Your task to perform on an android device: Open sound settings Image 0: 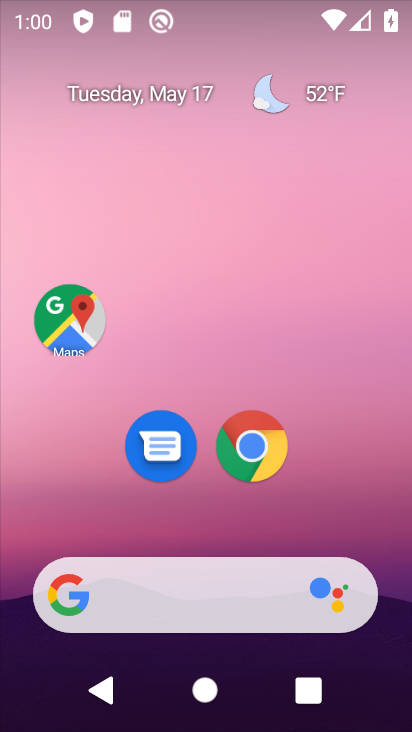
Step 0: drag from (382, 497) to (327, 140)
Your task to perform on an android device: Open sound settings Image 1: 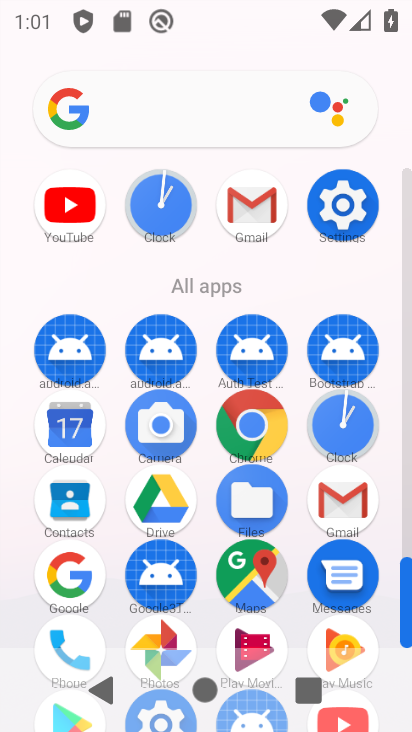
Step 1: click (346, 226)
Your task to perform on an android device: Open sound settings Image 2: 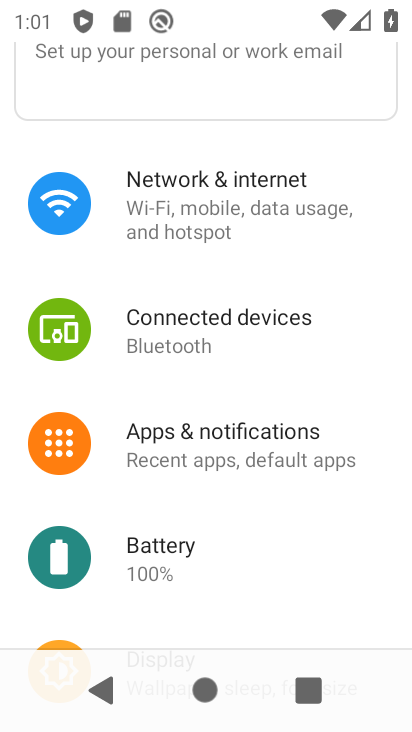
Step 2: drag from (258, 515) to (281, 155)
Your task to perform on an android device: Open sound settings Image 3: 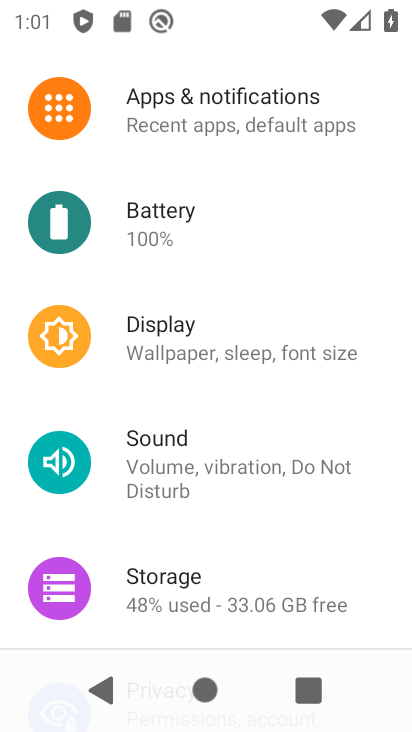
Step 3: click (172, 484)
Your task to perform on an android device: Open sound settings Image 4: 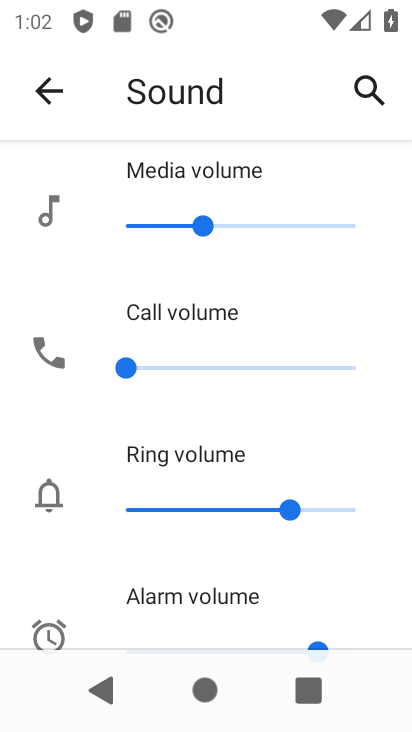
Step 4: task complete